Your task to perform on an android device: turn on airplane mode Image 0: 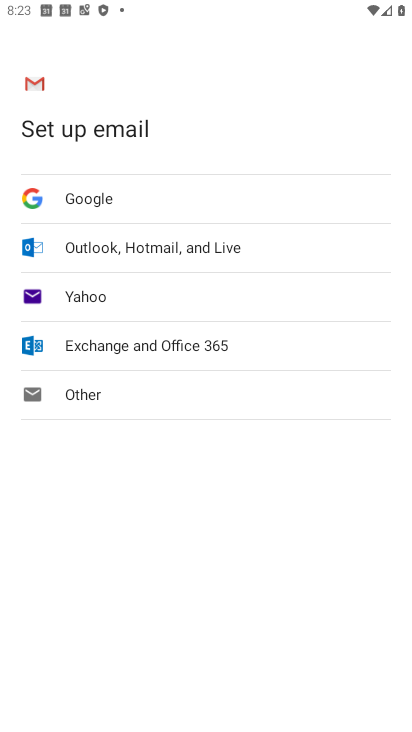
Step 0: press home button
Your task to perform on an android device: turn on airplane mode Image 1: 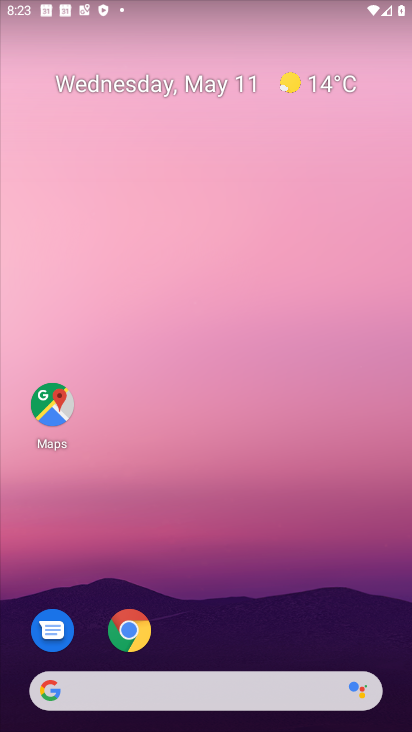
Step 1: drag from (219, 666) to (208, 125)
Your task to perform on an android device: turn on airplane mode Image 2: 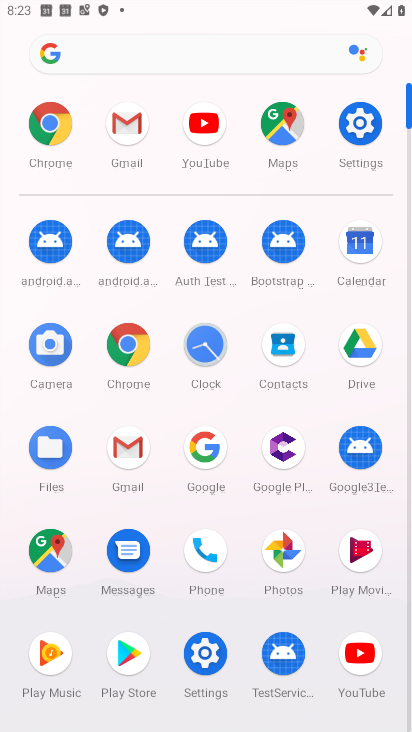
Step 2: click (354, 106)
Your task to perform on an android device: turn on airplane mode Image 3: 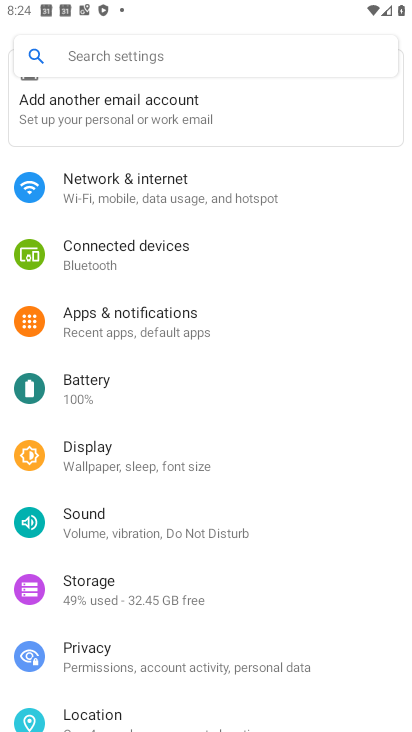
Step 3: click (121, 181)
Your task to perform on an android device: turn on airplane mode Image 4: 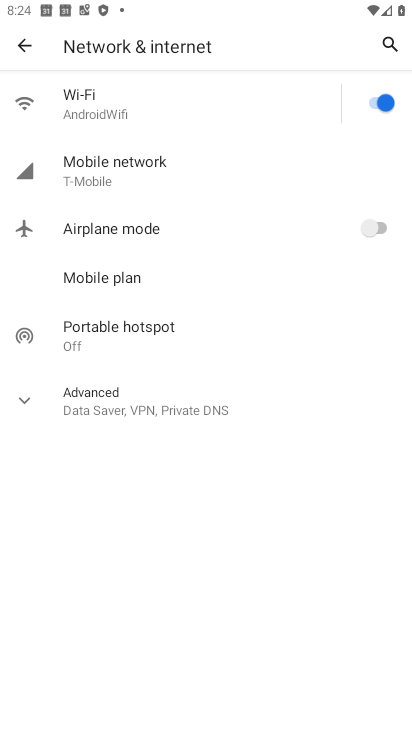
Step 4: click (376, 237)
Your task to perform on an android device: turn on airplane mode Image 5: 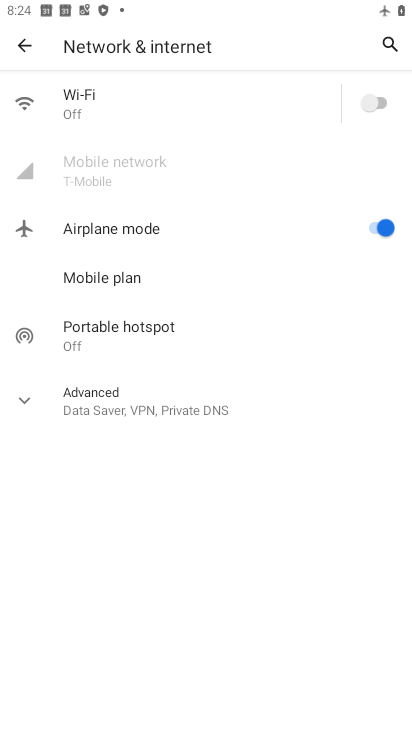
Step 5: task complete